Your task to perform on an android device: toggle show notifications on the lock screen Image 0: 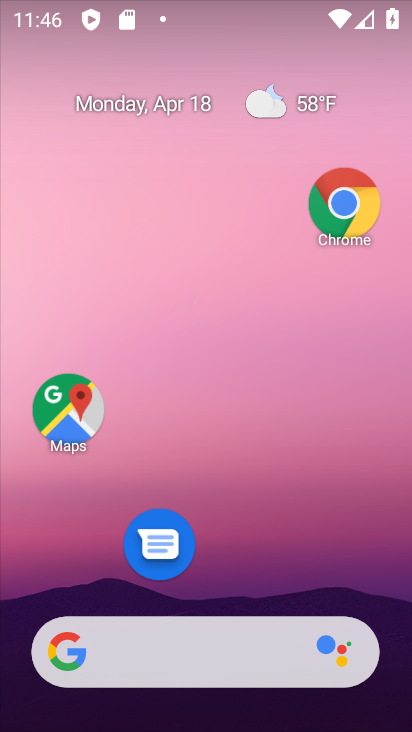
Step 0: drag from (253, 564) to (254, 18)
Your task to perform on an android device: toggle show notifications on the lock screen Image 1: 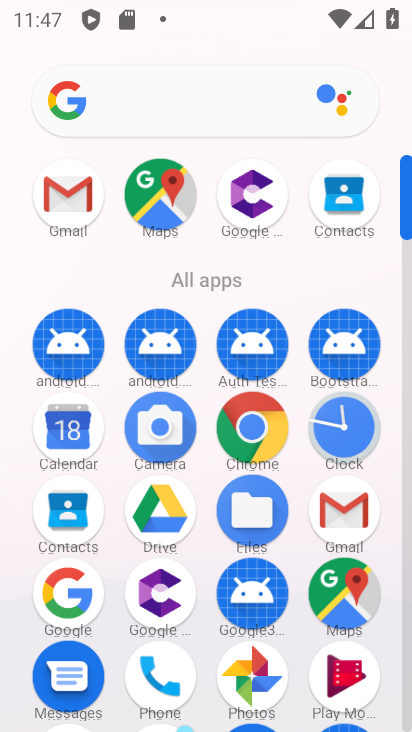
Step 1: drag from (199, 654) to (207, 294)
Your task to perform on an android device: toggle show notifications on the lock screen Image 2: 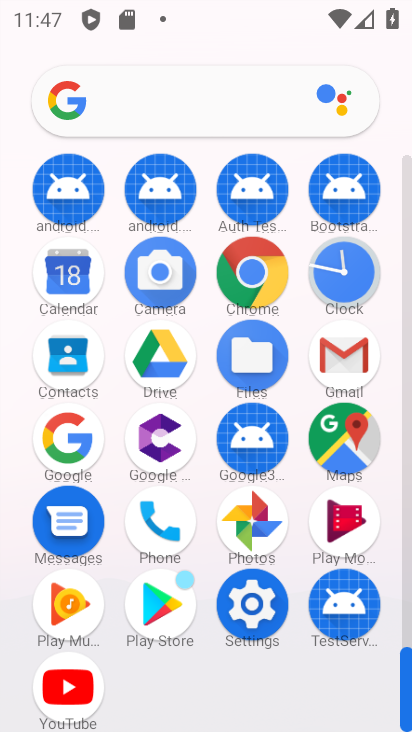
Step 2: click (247, 617)
Your task to perform on an android device: toggle show notifications on the lock screen Image 3: 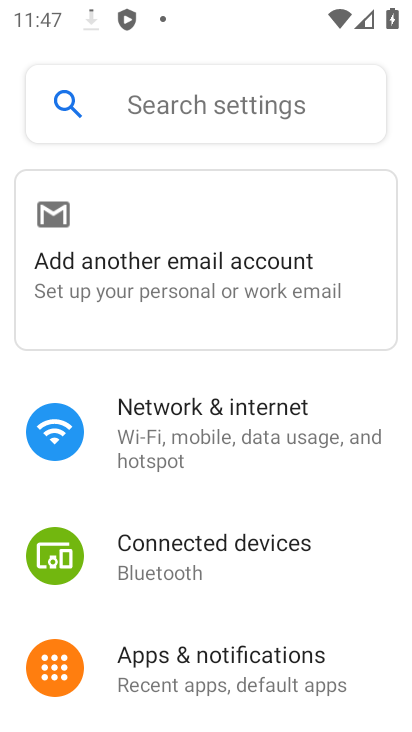
Step 3: click (226, 654)
Your task to perform on an android device: toggle show notifications on the lock screen Image 4: 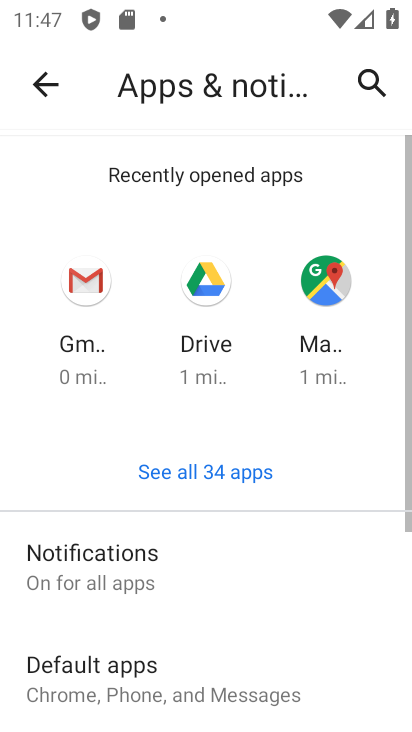
Step 4: click (131, 566)
Your task to perform on an android device: toggle show notifications on the lock screen Image 5: 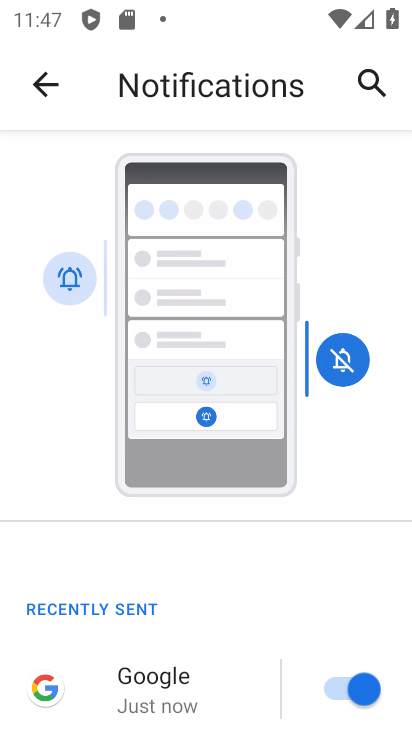
Step 5: drag from (265, 639) to (271, 164)
Your task to perform on an android device: toggle show notifications on the lock screen Image 6: 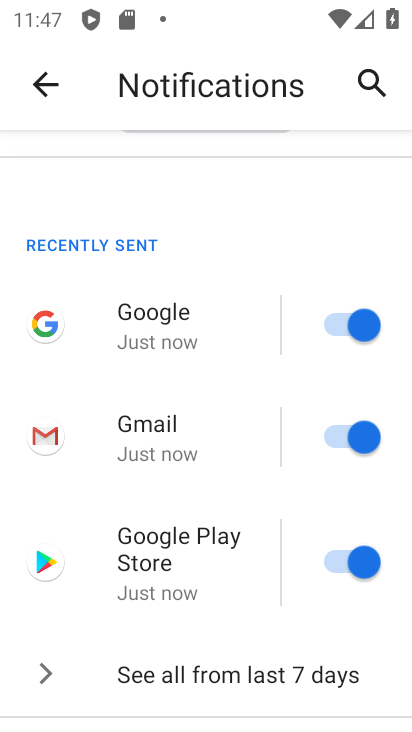
Step 6: drag from (255, 607) to (278, 170)
Your task to perform on an android device: toggle show notifications on the lock screen Image 7: 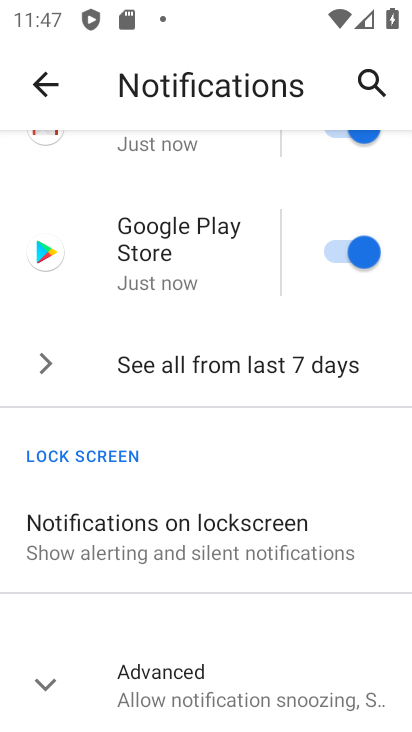
Step 7: click (221, 549)
Your task to perform on an android device: toggle show notifications on the lock screen Image 8: 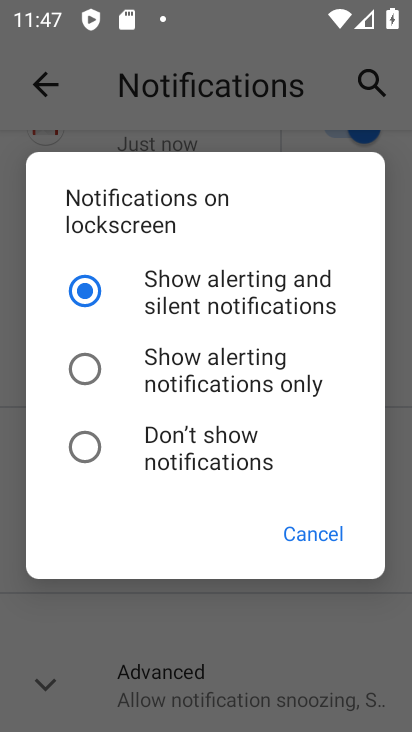
Step 8: click (80, 375)
Your task to perform on an android device: toggle show notifications on the lock screen Image 9: 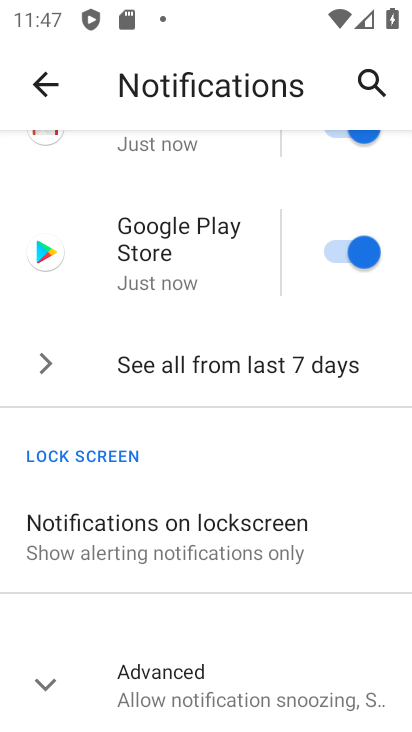
Step 9: task complete